Your task to perform on an android device: open a bookmark in the chrome app Image 0: 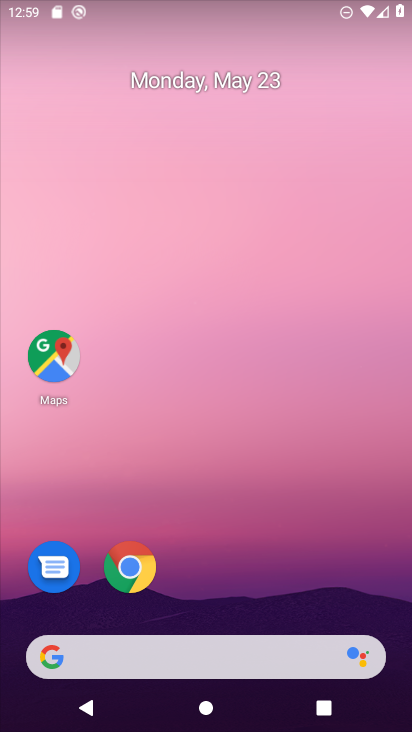
Step 0: click (136, 574)
Your task to perform on an android device: open a bookmark in the chrome app Image 1: 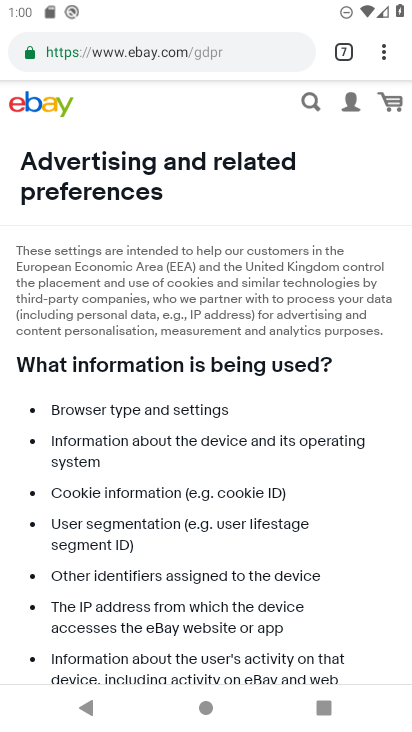
Step 1: click (393, 48)
Your task to perform on an android device: open a bookmark in the chrome app Image 2: 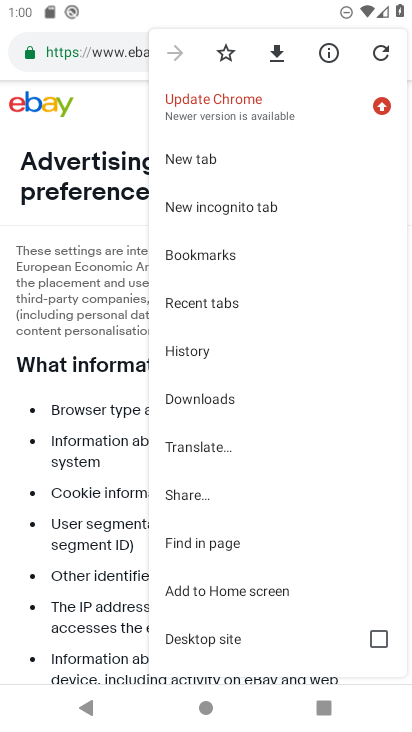
Step 2: click (213, 251)
Your task to perform on an android device: open a bookmark in the chrome app Image 3: 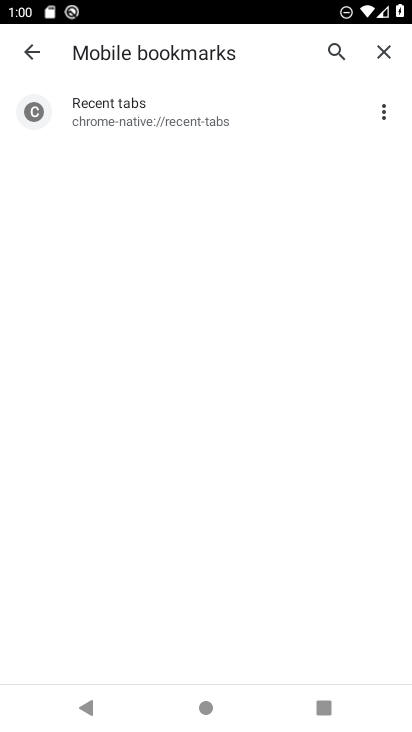
Step 3: click (181, 122)
Your task to perform on an android device: open a bookmark in the chrome app Image 4: 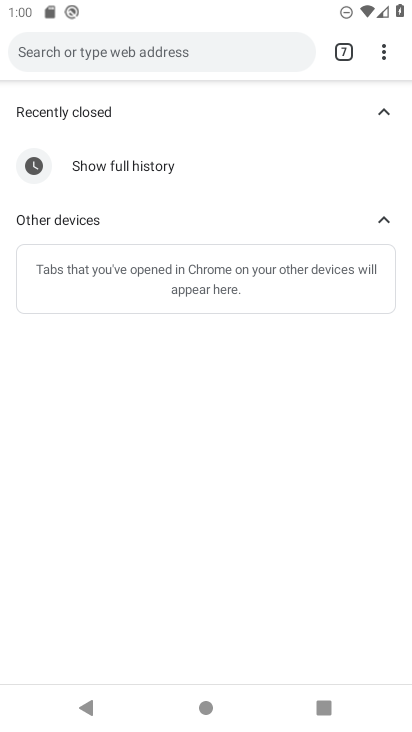
Step 4: task complete